Your task to perform on an android device: turn off wifi Image 0: 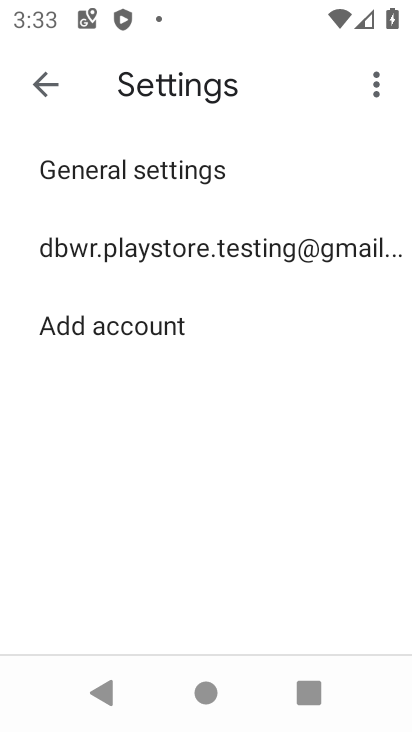
Step 0: press home button
Your task to perform on an android device: turn off wifi Image 1: 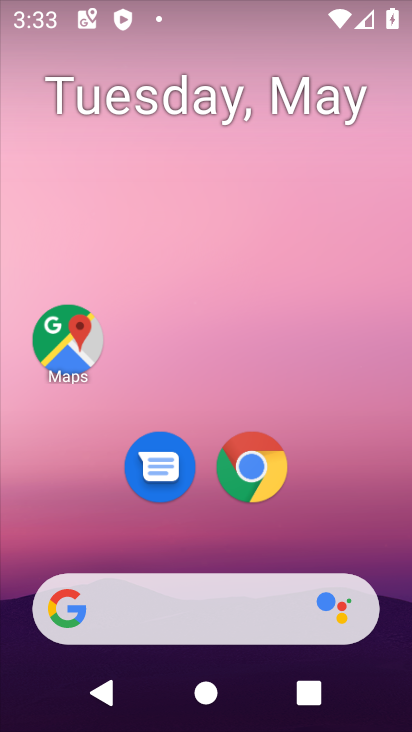
Step 1: drag from (348, 504) to (318, 48)
Your task to perform on an android device: turn off wifi Image 2: 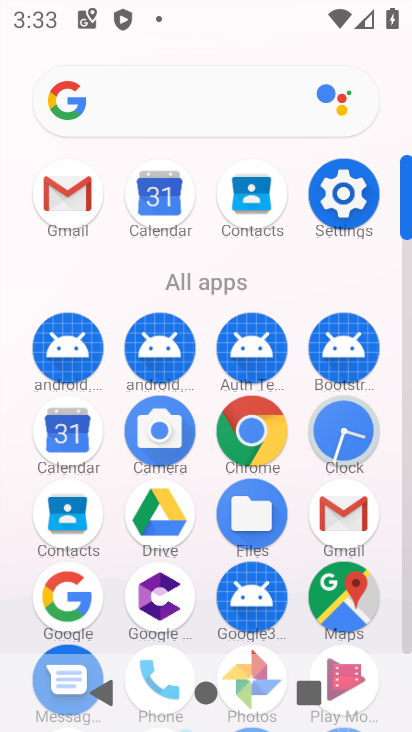
Step 2: click (350, 209)
Your task to perform on an android device: turn off wifi Image 3: 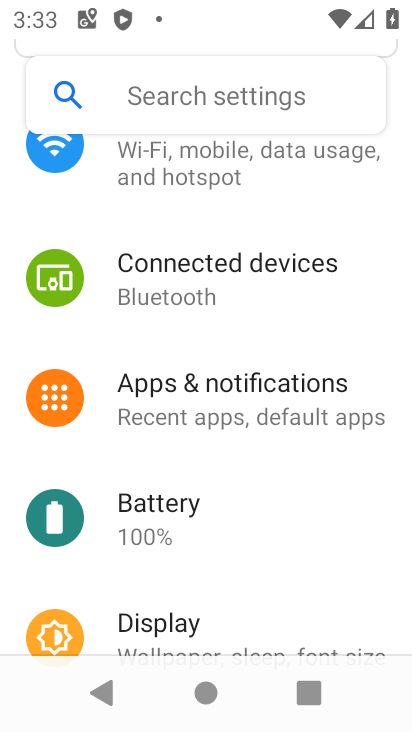
Step 3: click (205, 161)
Your task to perform on an android device: turn off wifi Image 4: 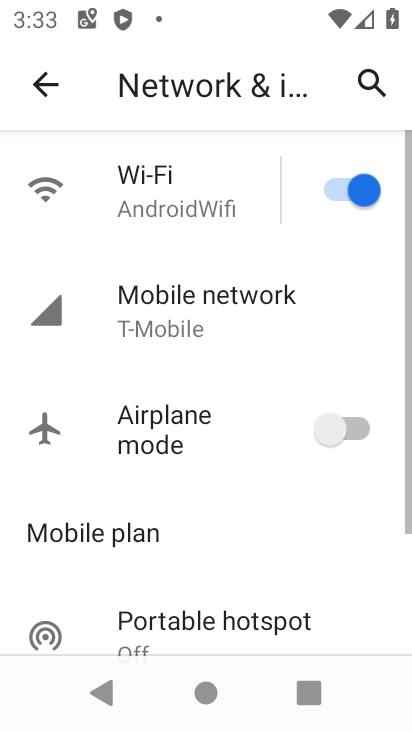
Step 4: click (163, 196)
Your task to perform on an android device: turn off wifi Image 5: 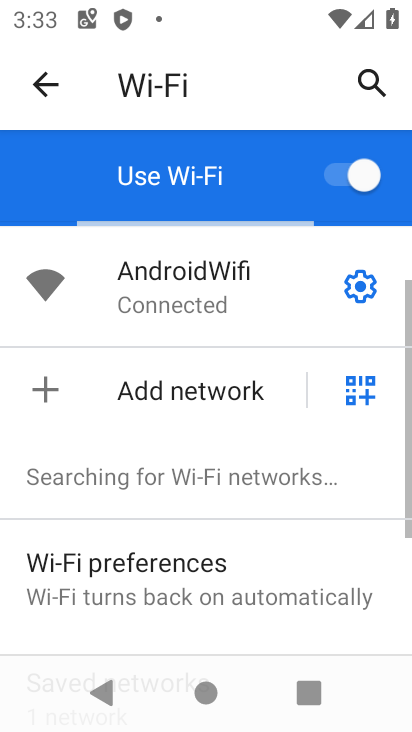
Step 5: click (337, 171)
Your task to perform on an android device: turn off wifi Image 6: 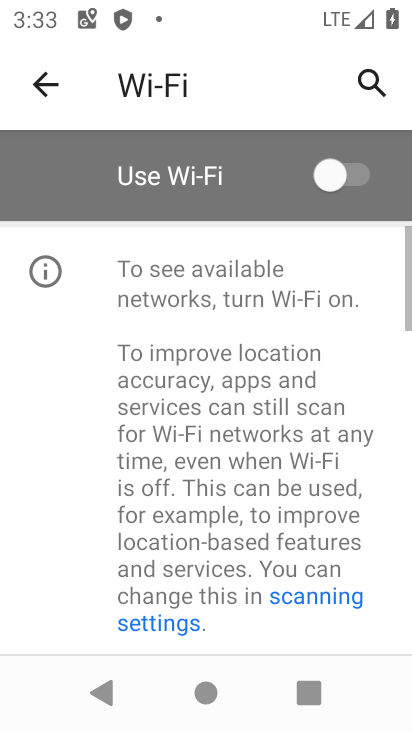
Step 6: task complete